Your task to perform on an android device: find which apps use the phone's location Image 0: 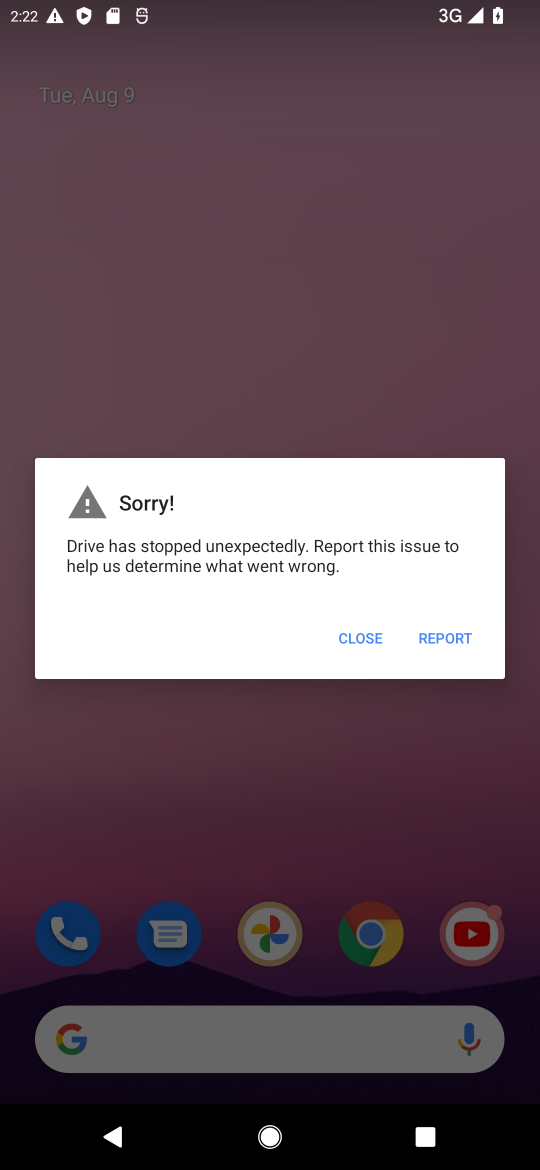
Step 0: click (337, 624)
Your task to perform on an android device: find which apps use the phone's location Image 1: 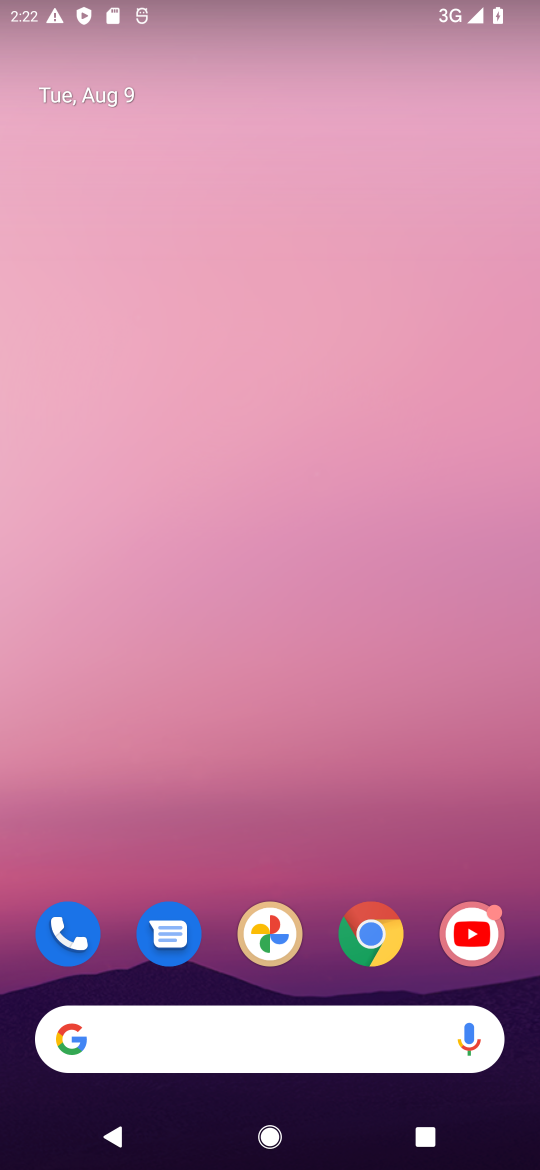
Step 1: drag from (318, 986) to (423, 302)
Your task to perform on an android device: find which apps use the phone's location Image 2: 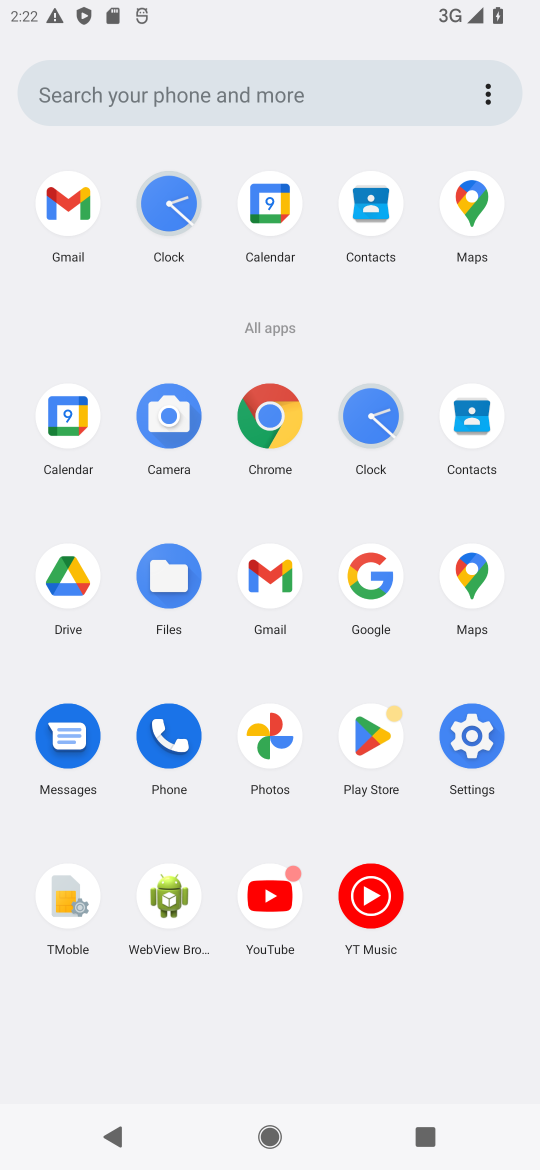
Step 2: click (462, 754)
Your task to perform on an android device: find which apps use the phone's location Image 3: 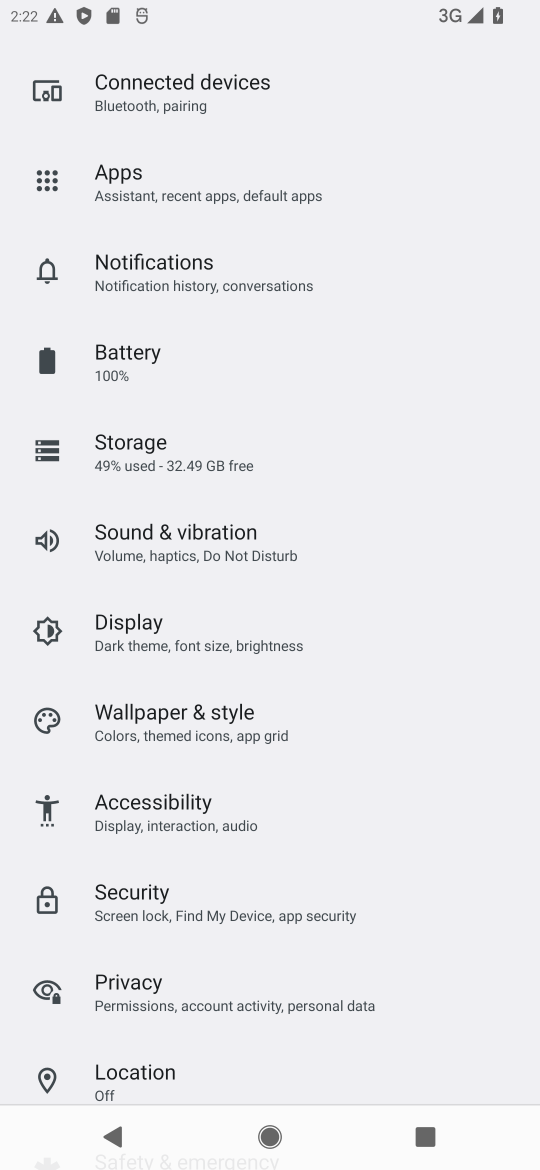
Step 3: click (172, 1043)
Your task to perform on an android device: find which apps use the phone's location Image 4: 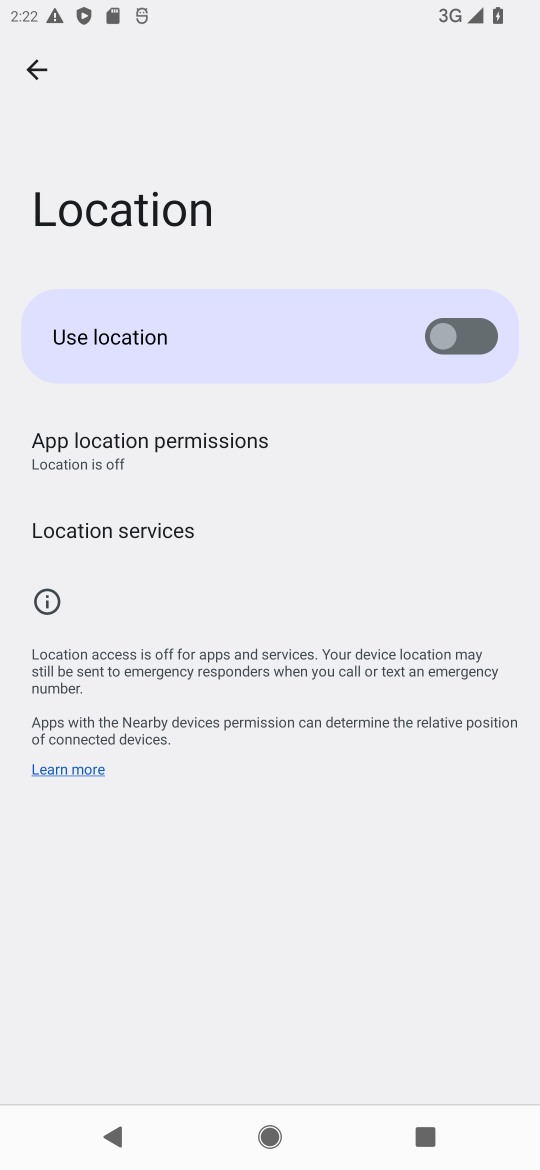
Step 4: task complete